Your task to perform on an android device: clear history in the chrome app Image 0: 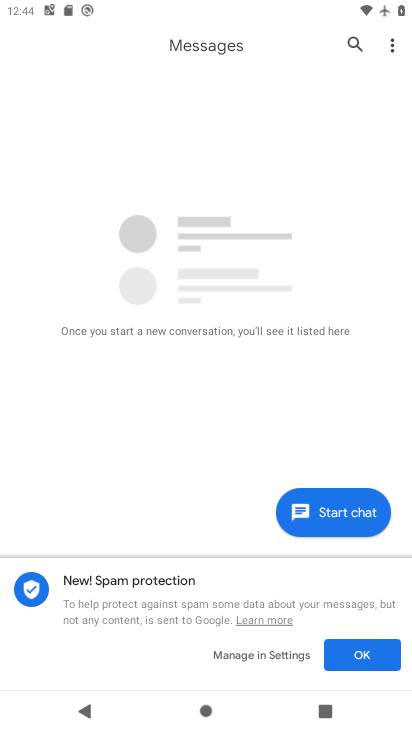
Step 0: press home button
Your task to perform on an android device: clear history in the chrome app Image 1: 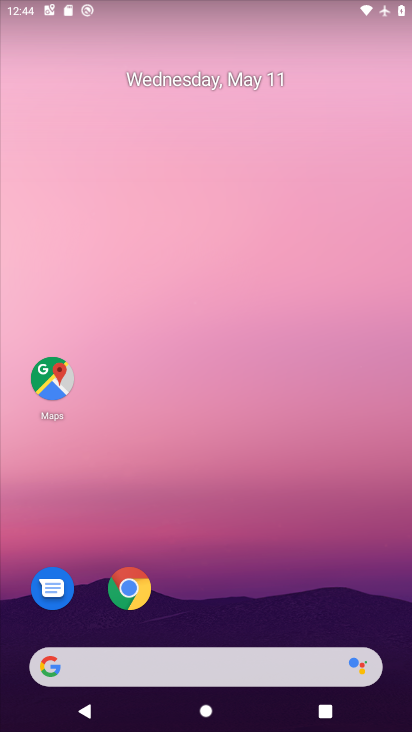
Step 1: click (132, 589)
Your task to perform on an android device: clear history in the chrome app Image 2: 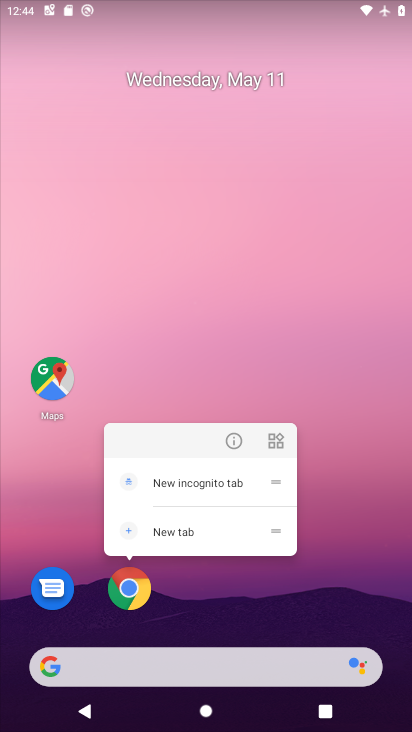
Step 2: click (132, 589)
Your task to perform on an android device: clear history in the chrome app Image 3: 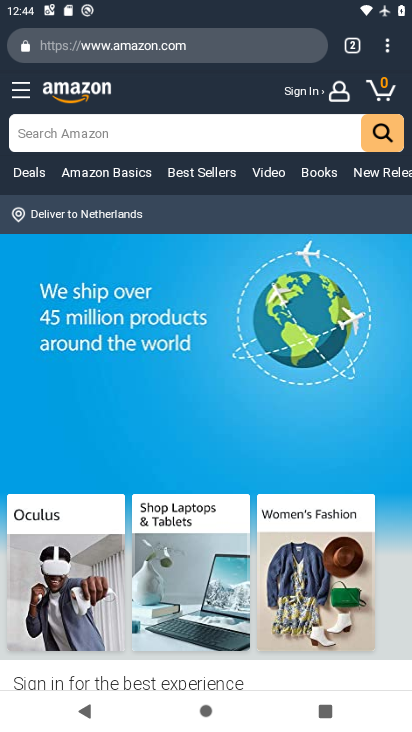
Step 3: click (384, 53)
Your task to perform on an android device: clear history in the chrome app Image 4: 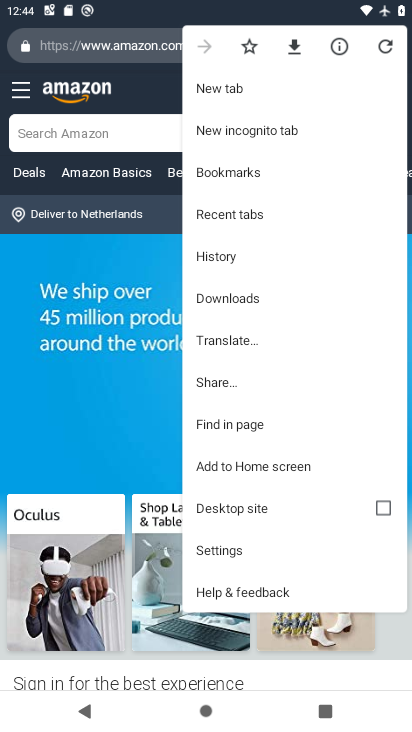
Step 4: click (236, 252)
Your task to perform on an android device: clear history in the chrome app Image 5: 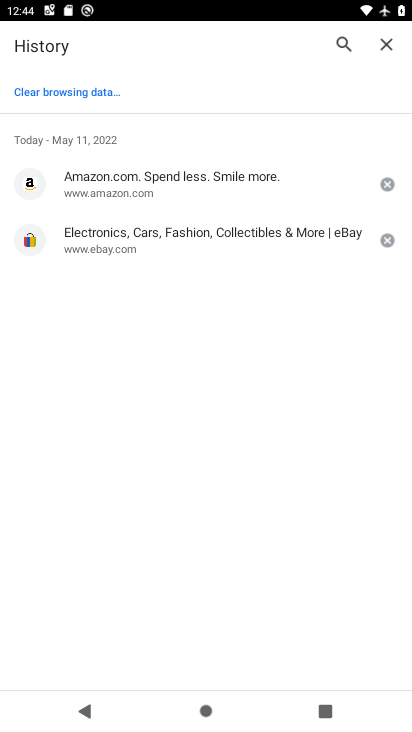
Step 5: click (75, 86)
Your task to perform on an android device: clear history in the chrome app Image 6: 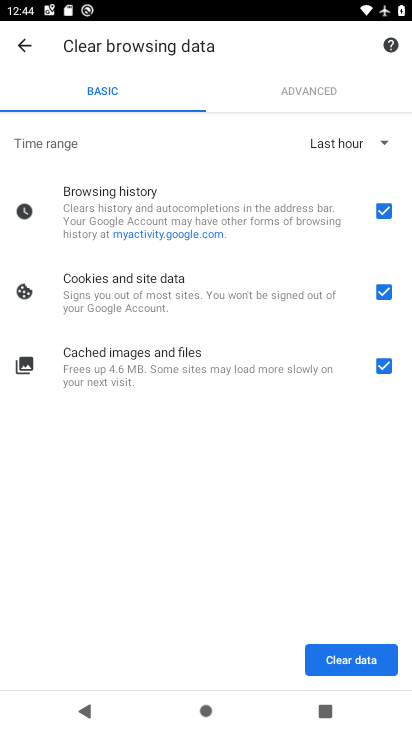
Step 6: click (351, 656)
Your task to perform on an android device: clear history in the chrome app Image 7: 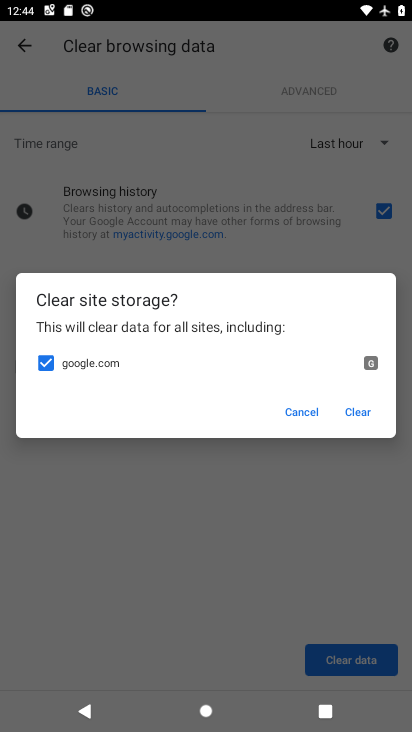
Step 7: click (357, 407)
Your task to perform on an android device: clear history in the chrome app Image 8: 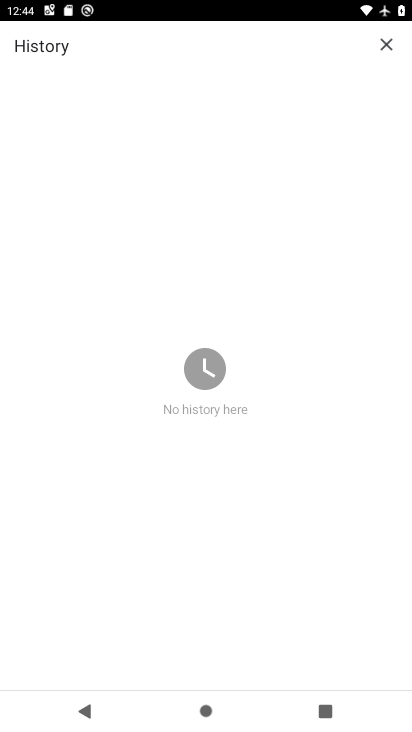
Step 8: task complete